Your task to perform on an android device: Open calendar and show me the first week of next month Image 0: 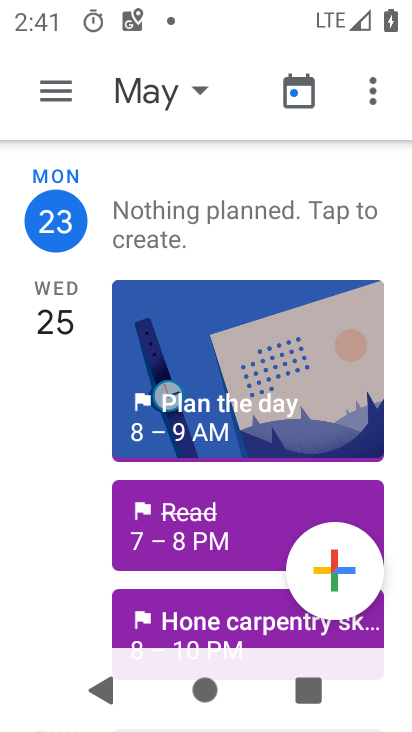
Step 0: click (50, 110)
Your task to perform on an android device: Open calendar and show me the first week of next month Image 1: 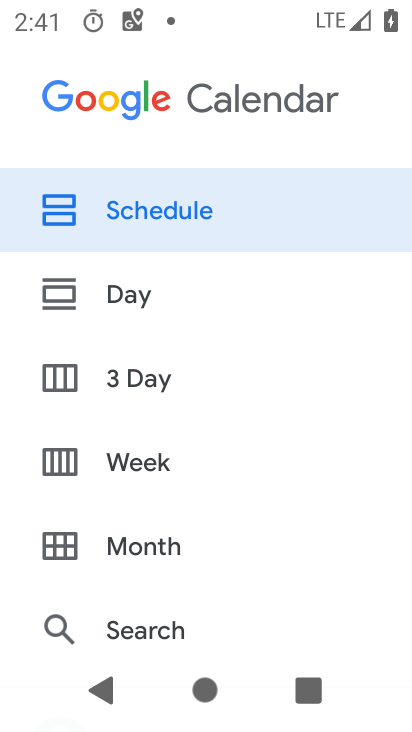
Step 1: click (125, 536)
Your task to perform on an android device: Open calendar and show me the first week of next month Image 2: 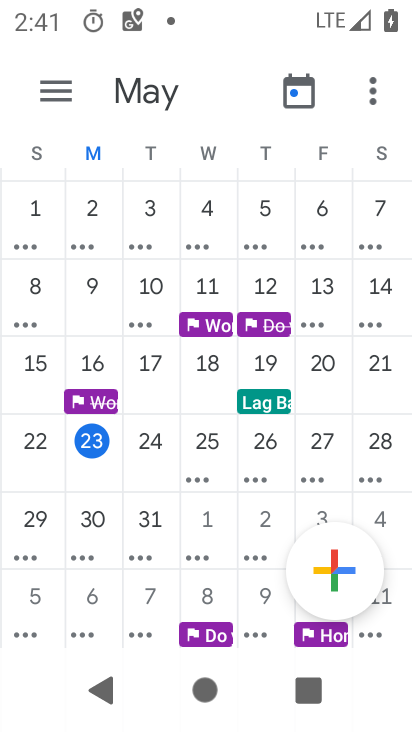
Step 2: task complete